Your task to perform on an android device: Open calendar and show me the second week of next month Image 0: 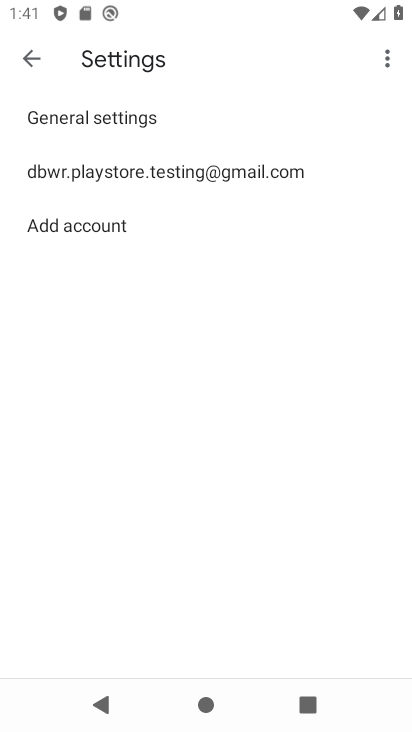
Step 0: press home button
Your task to perform on an android device: Open calendar and show me the second week of next month Image 1: 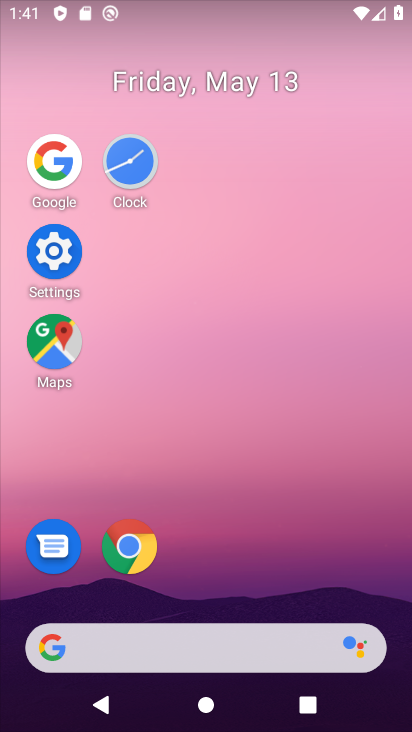
Step 1: drag from (298, 520) to (329, 127)
Your task to perform on an android device: Open calendar and show me the second week of next month Image 2: 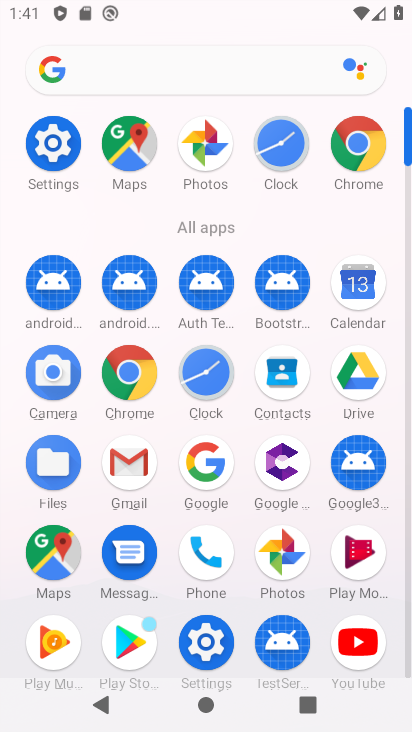
Step 2: drag from (357, 277) to (230, 170)
Your task to perform on an android device: Open calendar and show me the second week of next month Image 3: 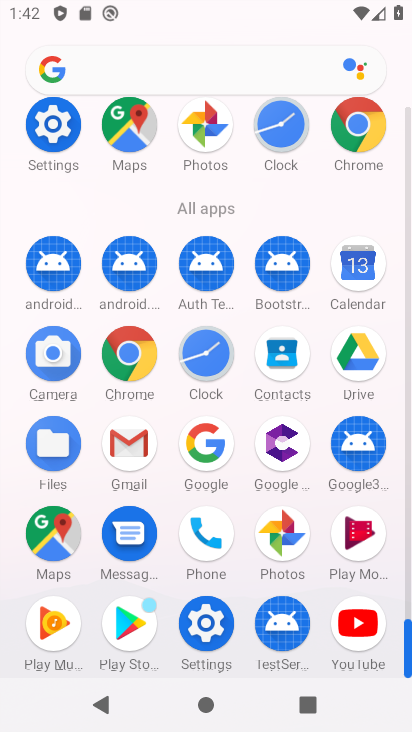
Step 3: drag from (349, 255) to (207, 188)
Your task to perform on an android device: Open calendar and show me the second week of next month Image 4: 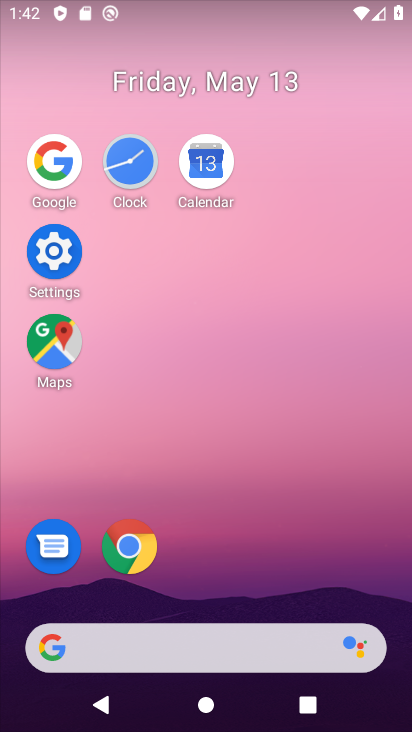
Step 4: click (208, 167)
Your task to perform on an android device: Open calendar and show me the second week of next month Image 5: 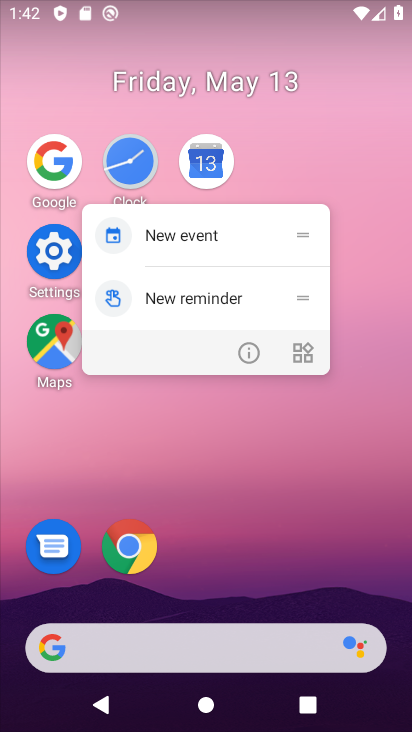
Step 5: click (222, 162)
Your task to perform on an android device: Open calendar and show me the second week of next month Image 6: 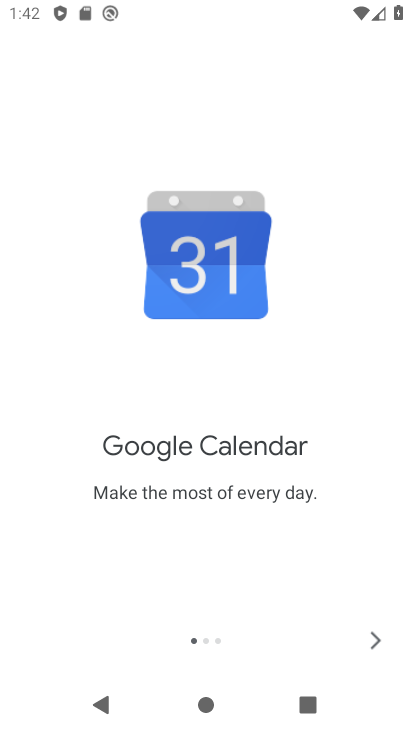
Step 6: click (371, 636)
Your task to perform on an android device: Open calendar and show me the second week of next month Image 7: 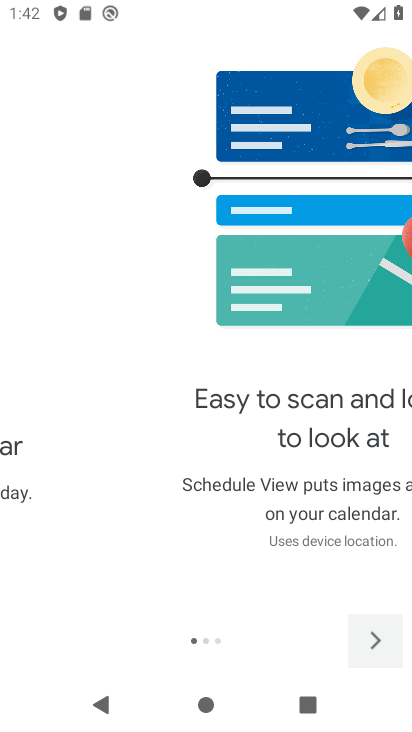
Step 7: click (371, 636)
Your task to perform on an android device: Open calendar and show me the second week of next month Image 8: 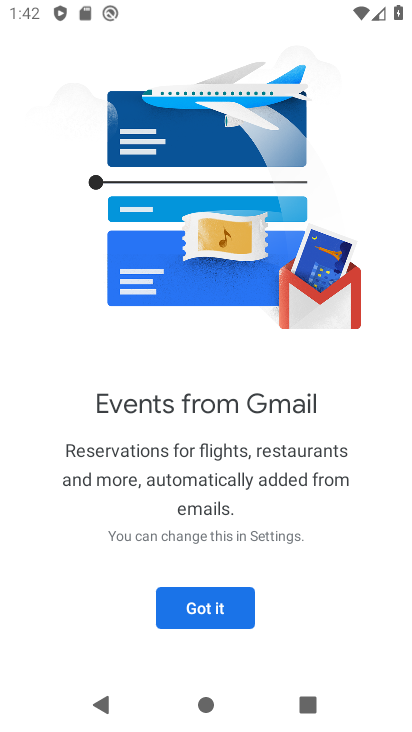
Step 8: click (230, 616)
Your task to perform on an android device: Open calendar and show me the second week of next month Image 9: 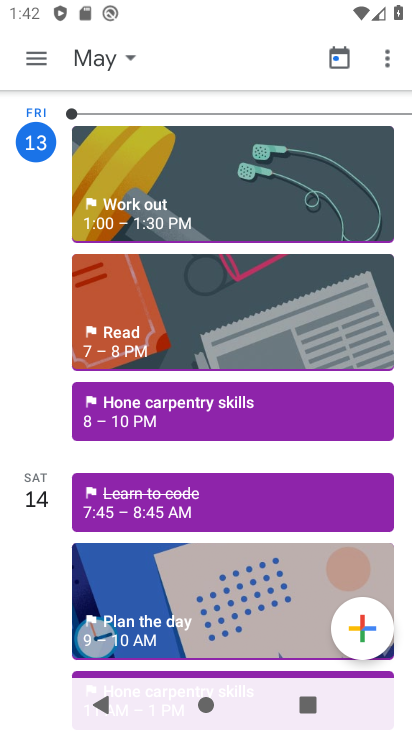
Step 9: click (96, 53)
Your task to perform on an android device: Open calendar and show me the second week of next month Image 10: 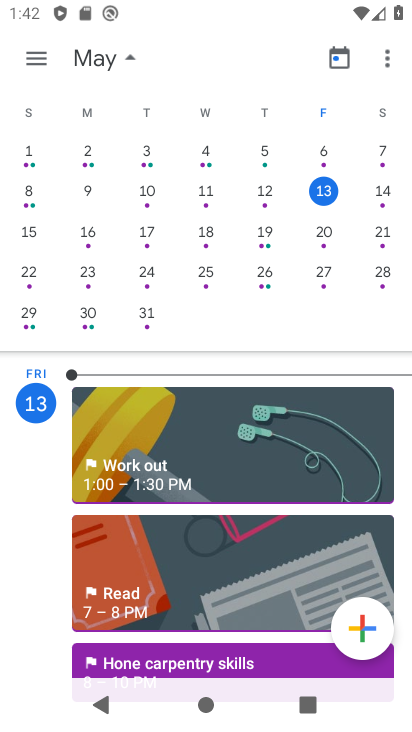
Step 10: drag from (387, 210) to (11, 203)
Your task to perform on an android device: Open calendar and show me the second week of next month Image 11: 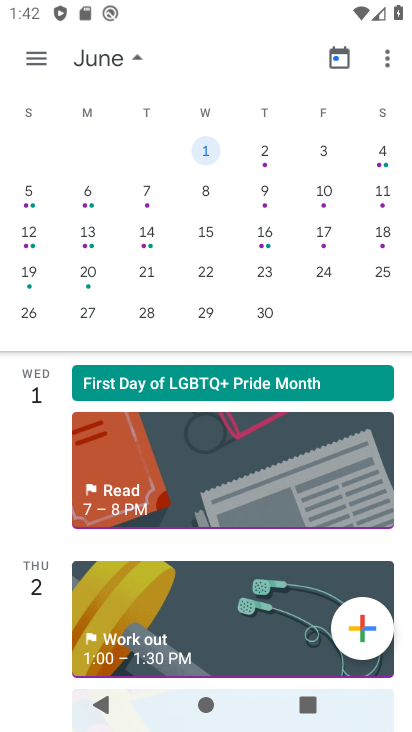
Step 11: click (43, 61)
Your task to perform on an android device: Open calendar and show me the second week of next month Image 12: 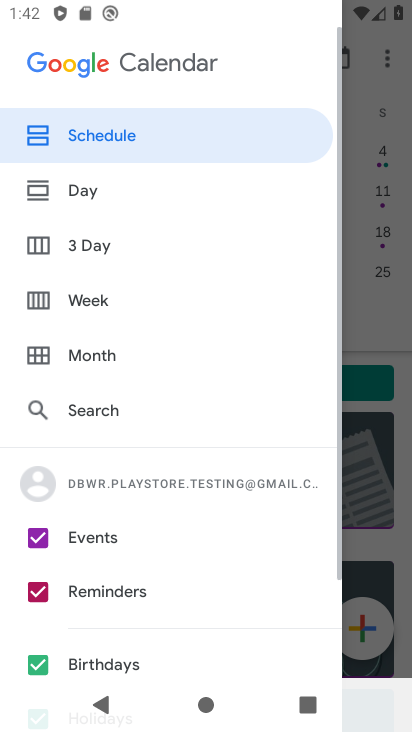
Step 12: click (114, 302)
Your task to perform on an android device: Open calendar and show me the second week of next month Image 13: 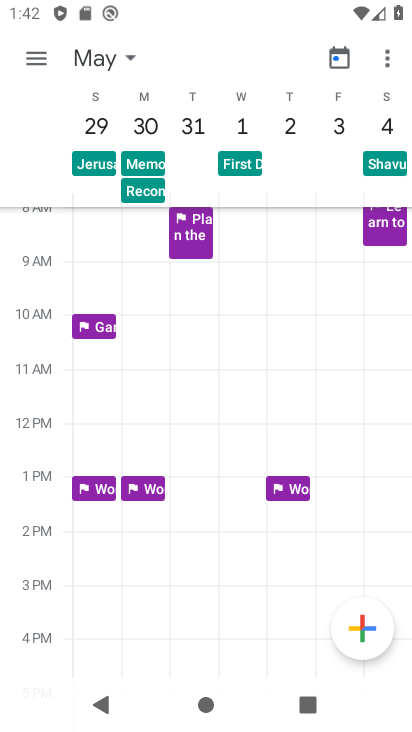
Step 13: task complete